Your task to perform on an android device: open chrome privacy settings Image 0: 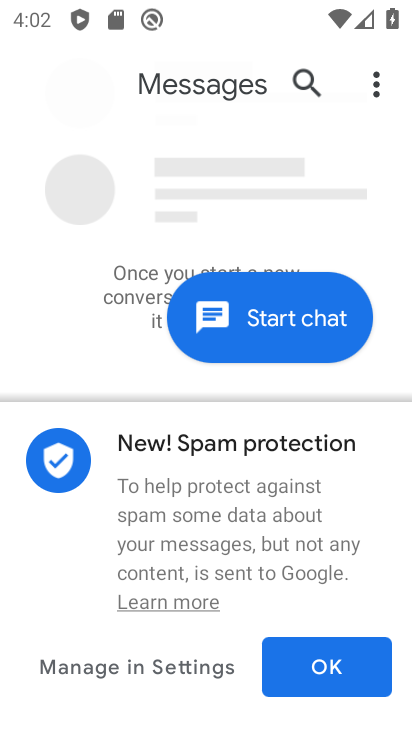
Step 0: press home button
Your task to perform on an android device: open chrome privacy settings Image 1: 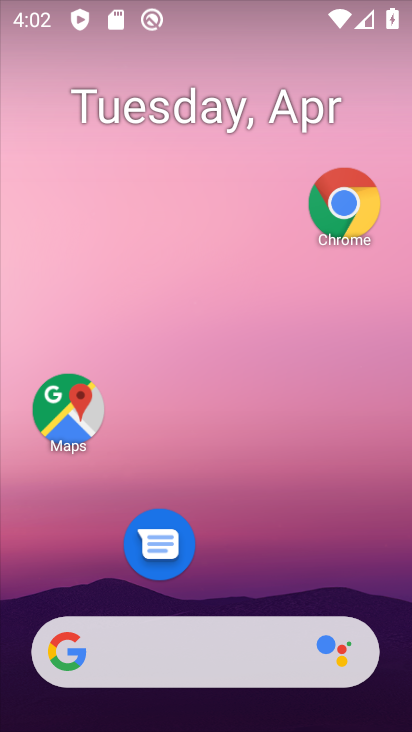
Step 1: click (359, 186)
Your task to perform on an android device: open chrome privacy settings Image 2: 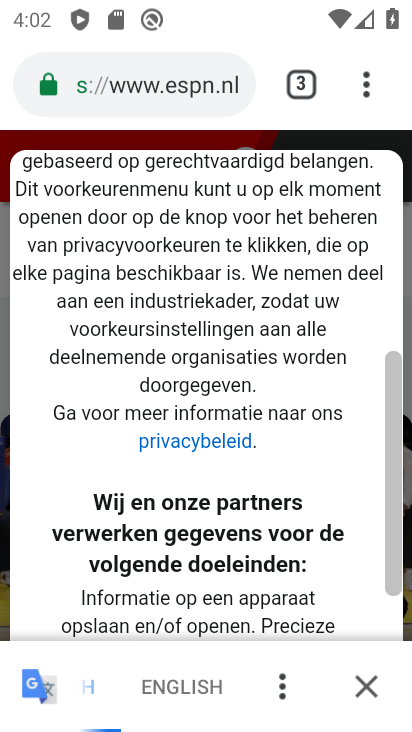
Step 2: click (356, 94)
Your task to perform on an android device: open chrome privacy settings Image 3: 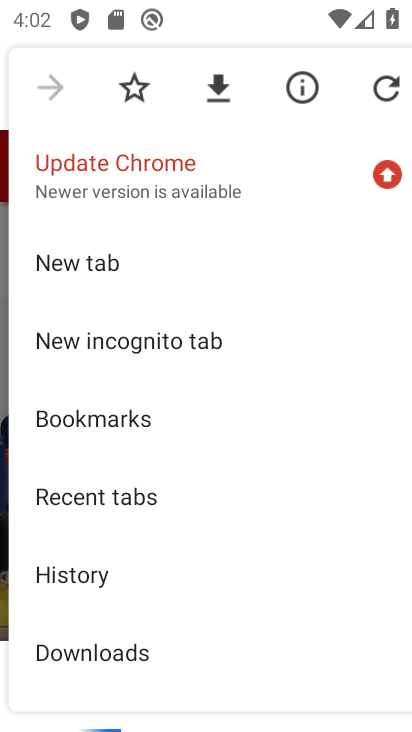
Step 3: drag from (183, 559) to (275, 63)
Your task to perform on an android device: open chrome privacy settings Image 4: 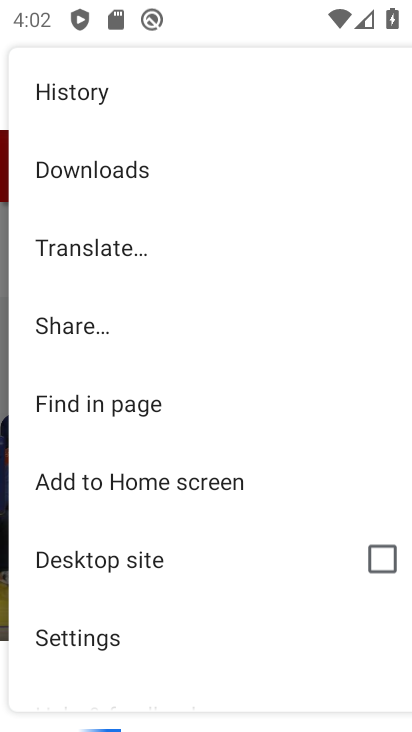
Step 4: drag from (116, 559) to (186, 166)
Your task to perform on an android device: open chrome privacy settings Image 5: 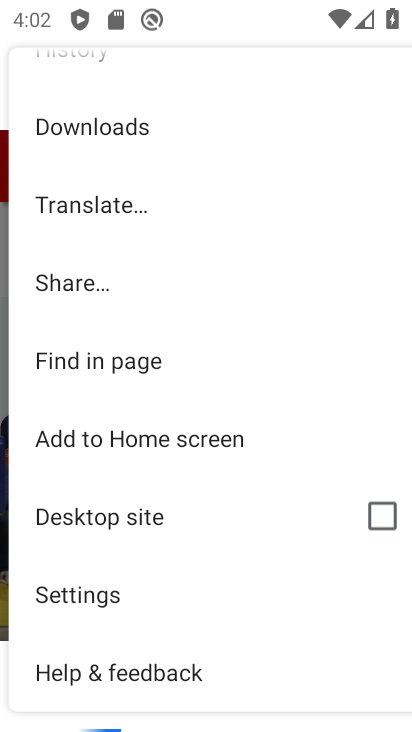
Step 5: click (98, 600)
Your task to perform on an android device: open chrome privacy settings Image 6: 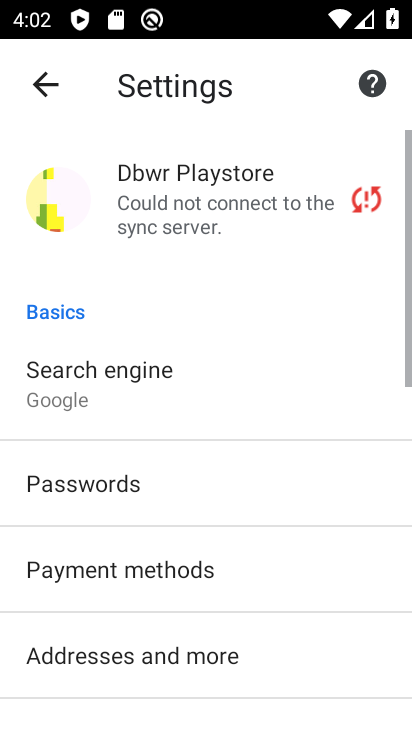
Step 6: drag from (136, 552) to (222, 195)
Your task to perform on an android device: open chrome privacy settings Image 7: 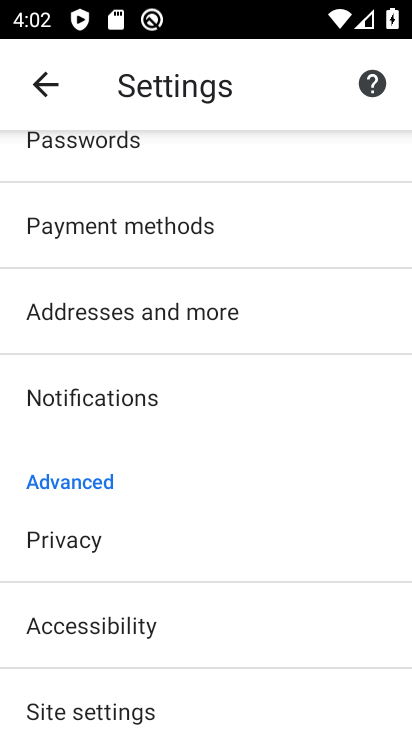
Step 7: click (99, 555)
Your task to perform on an android device: open chrome privacy settings Image 8: 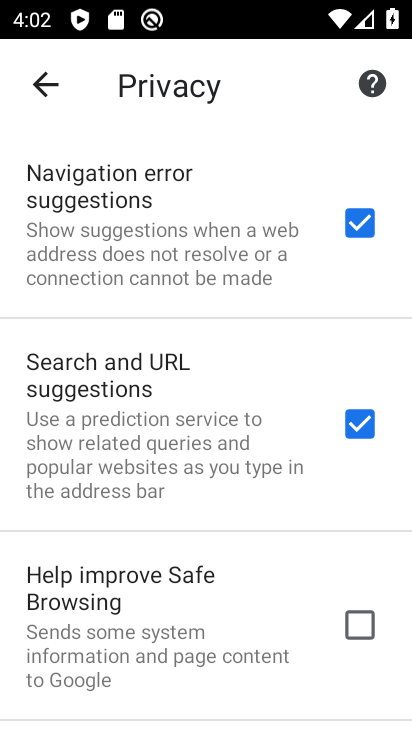
Step 8: task complete